Your task to perform on an android device: When is my next meeting? Image 0: 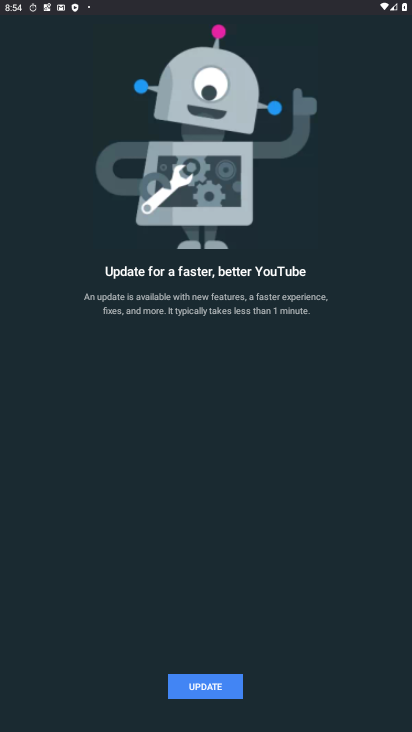
Step 0: press back button
Your task to perform on an android device: When is my next meeting? Image 1: 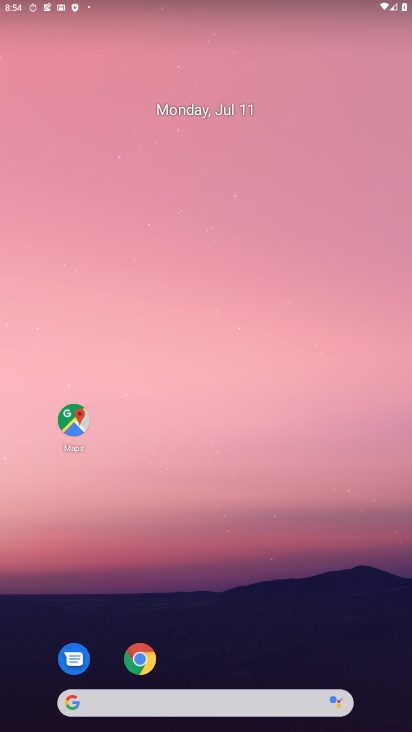
Step 1: drag from (262, 705) to (251, 191)
Your task to perform on an android device: When is my next meeting? Image 2: 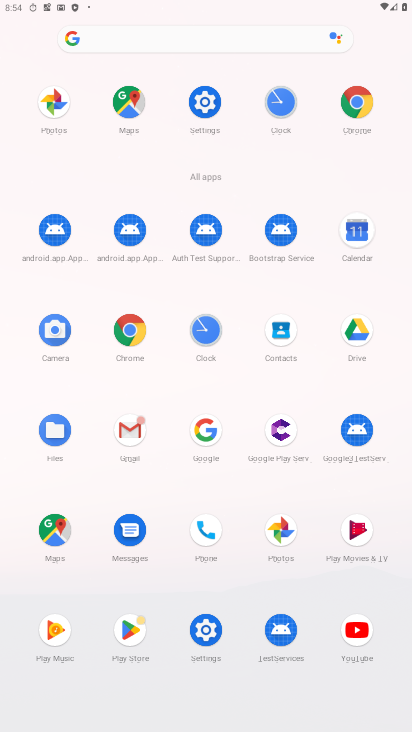
Step 2: click (349, 228)
Your task to perform on an android device: When is my next meeting? Image 3: 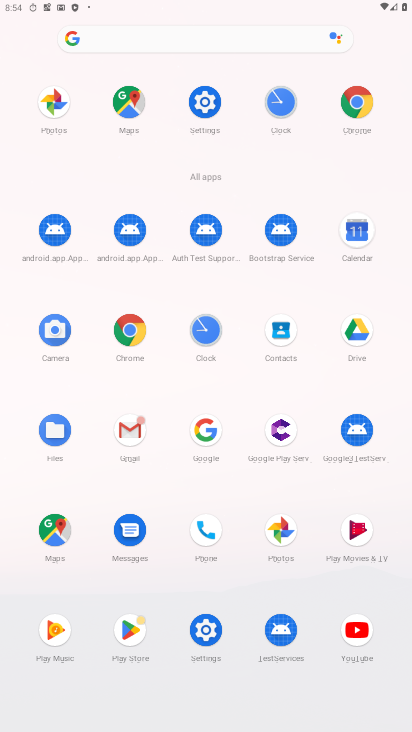
Step 3: click (349, 227)
Your task to perform on an android device: When is my next meeting? Image 4: 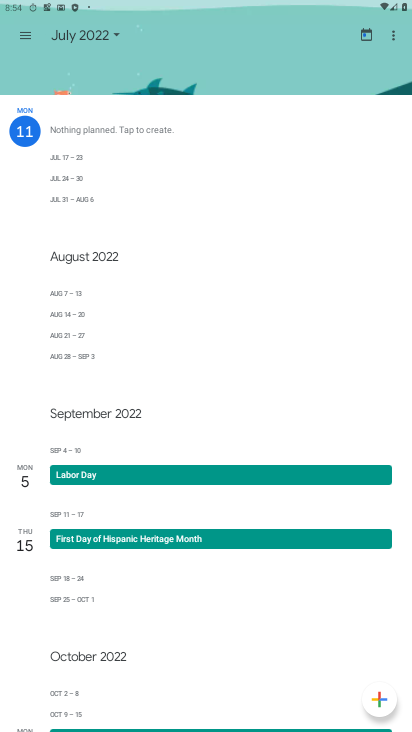
Step 4: click (120, 198)
Your task to perform on an android device: When is my next meeting? Image 5: 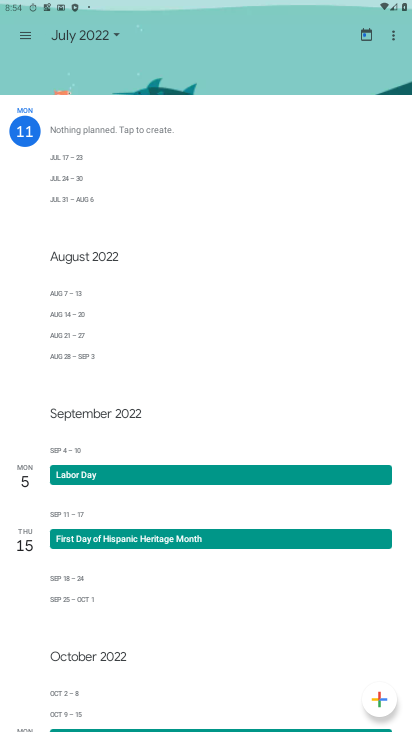
Step 5: click (146, 221)
Your task to perform on an android device: When is my next meeting? Image 6: 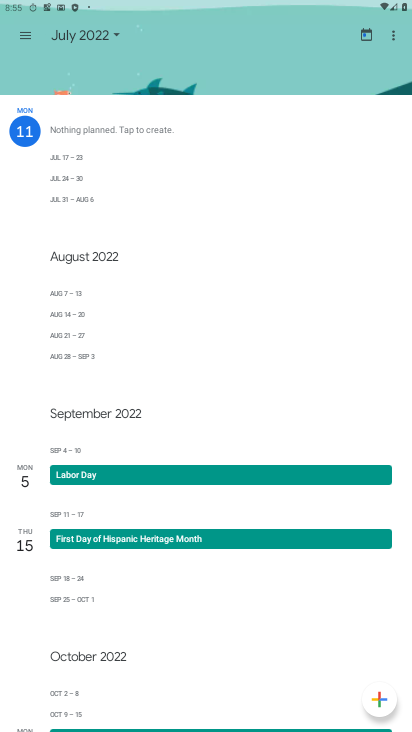
Step 6: task complete